Your task to perform on an android device: What's the weather today? Image 0: 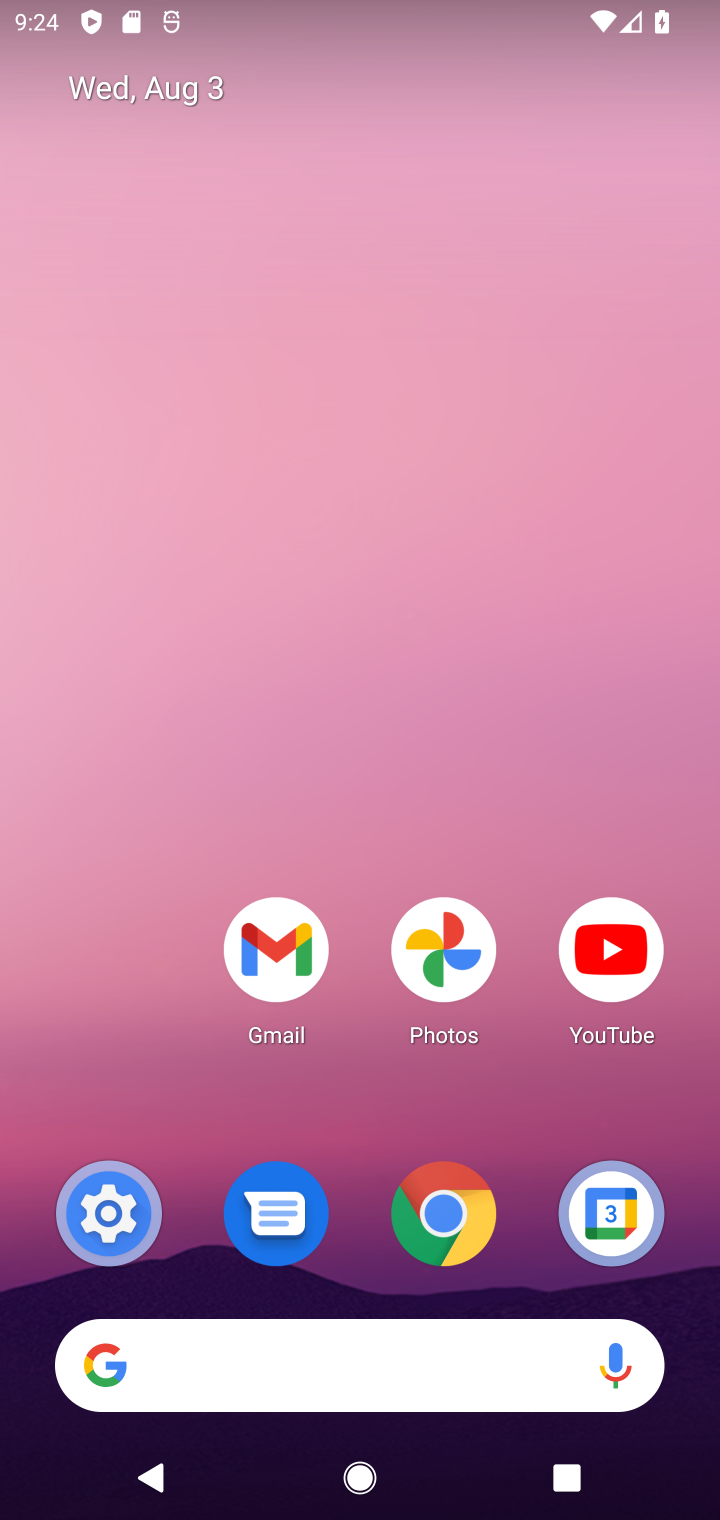
Step 0: click (428, 1344)
Your task to perform on an android device: What's the weather today? Image 1: 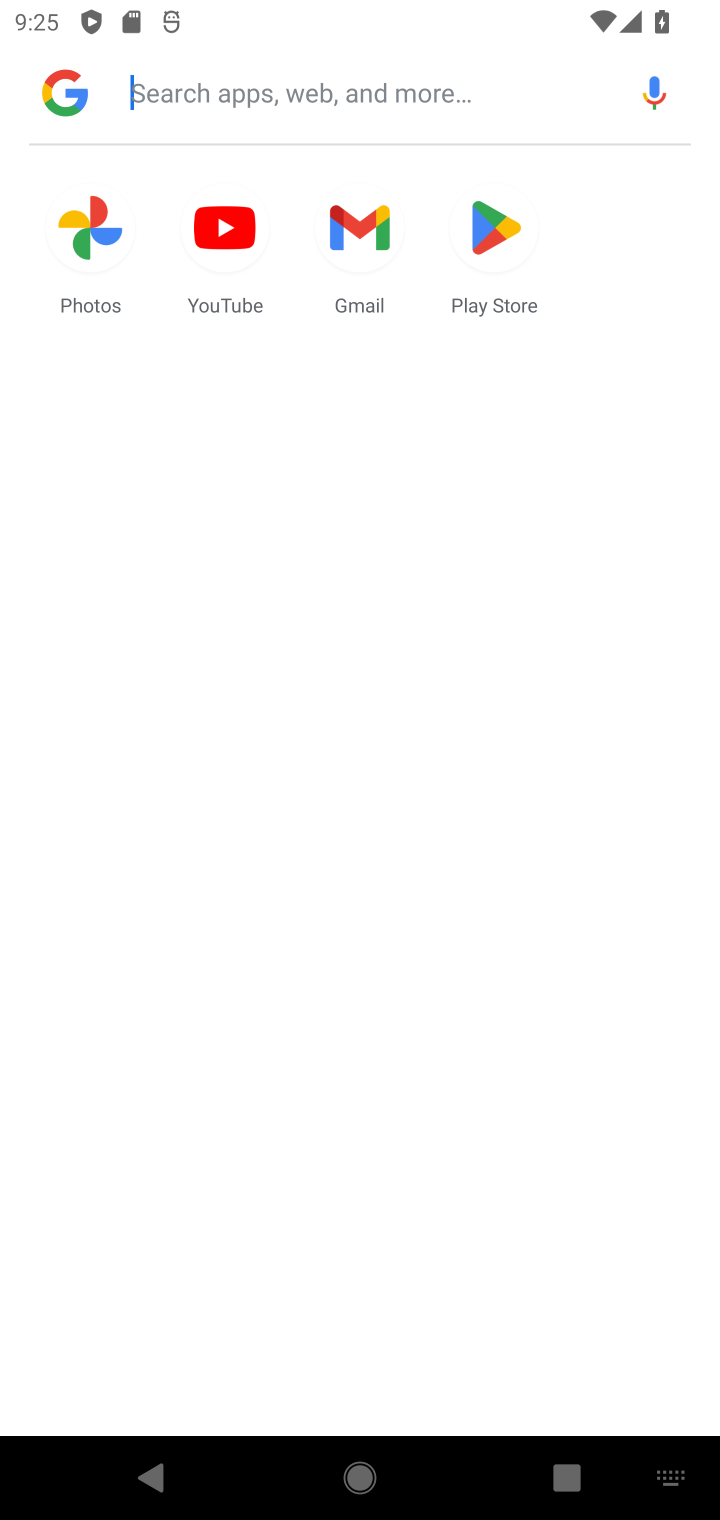
Step 1: type "weather today"
Your task to perform on an android device: What's the weather today? Image 2: 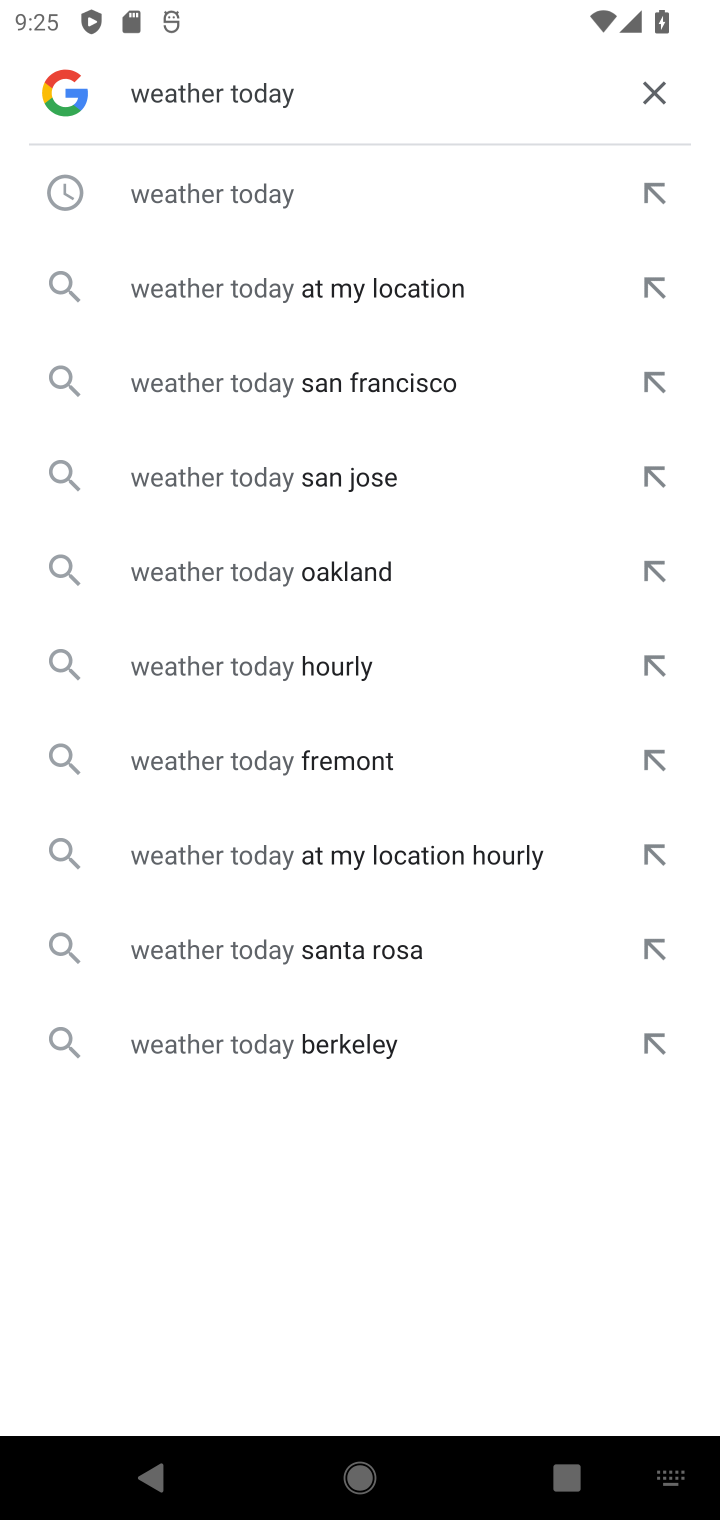
Step 2: click (336, 185)
Your task to perform on an android device: What's the weather today? Image 3: 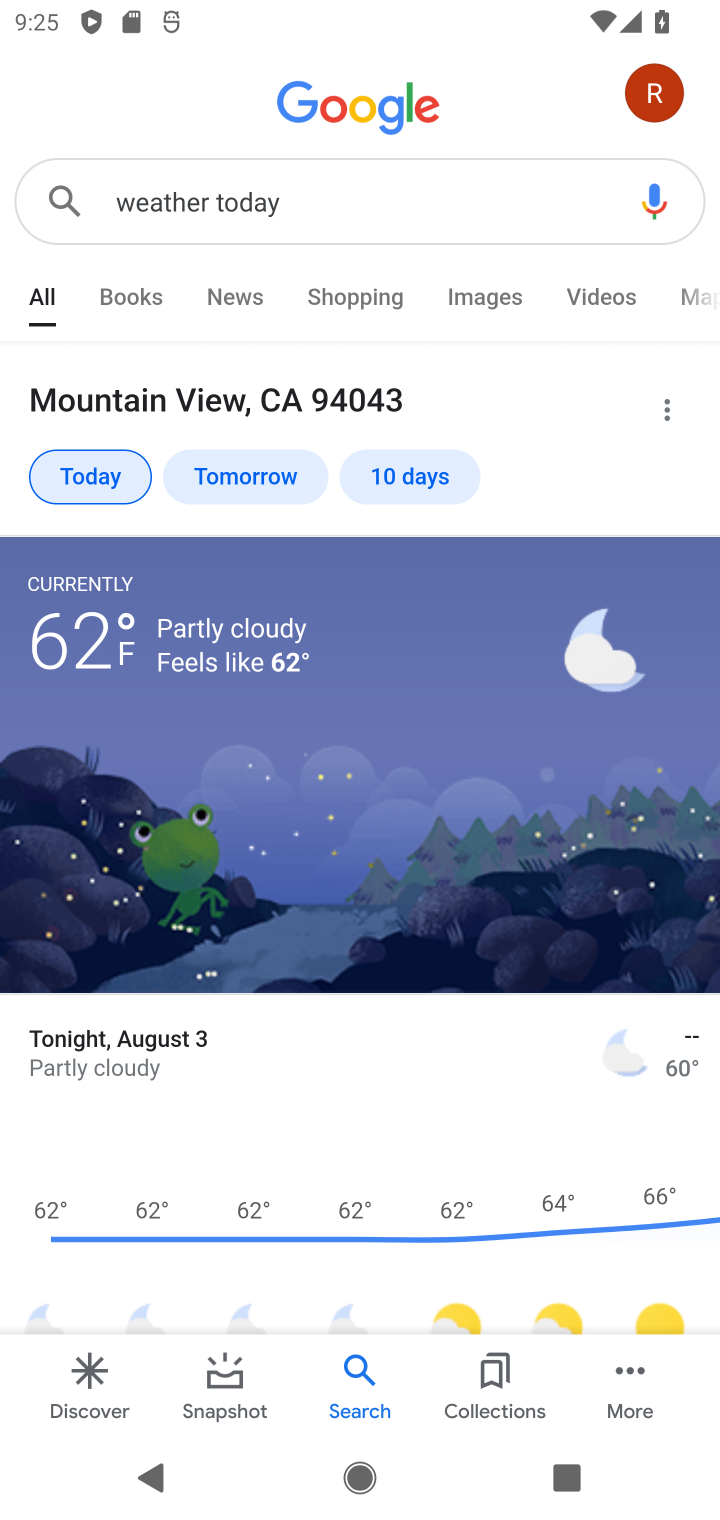
Step 3: task complete